Your task to perform on an android device: Open my contact list Image 0: 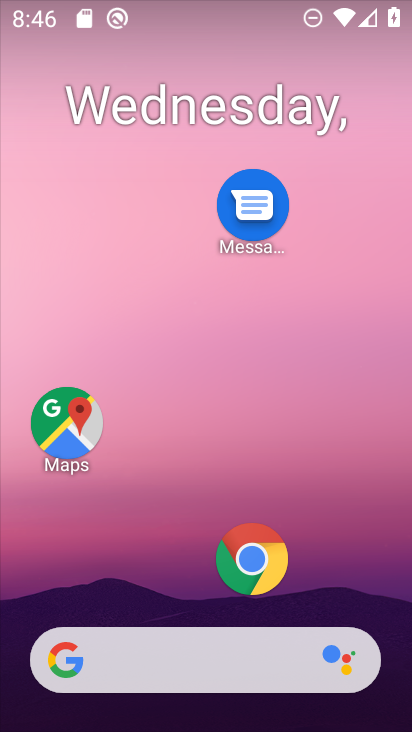
Step 0: drag from (280, 659) to (350, 237)
Your task to perform on an android device: Open my contact list Image 1: 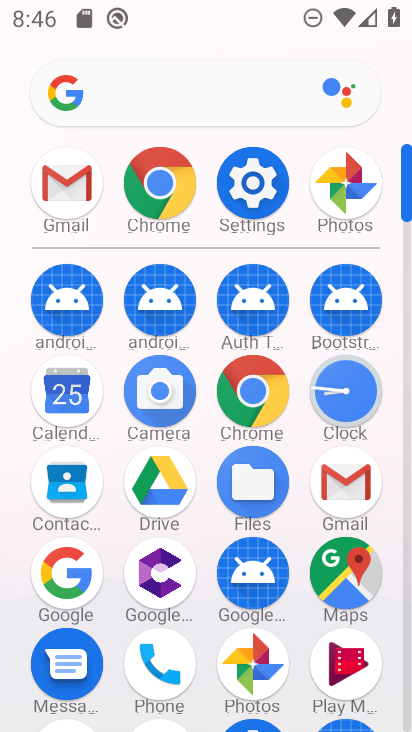
Step 1: click (84, 489)
Your task to perform on an android device: Open my contact list Image 2: 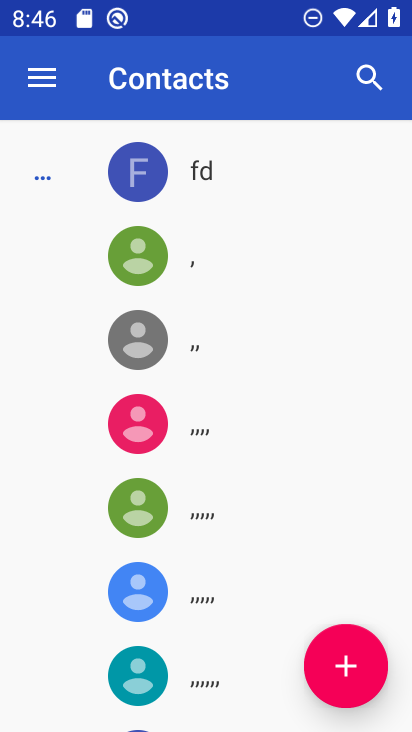
Step 2: task complete